Your task to perform on an android device: set an alarm Image 0: 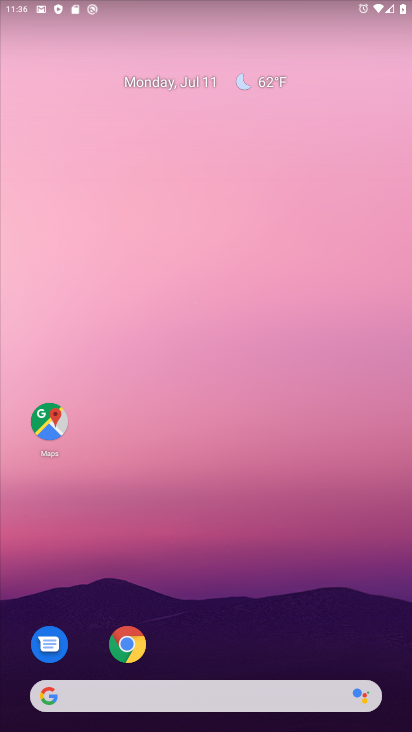
Step 0: drag from (192, 664) to (113, 63)
Your task to perform on an android device: set an alarm Image 1: 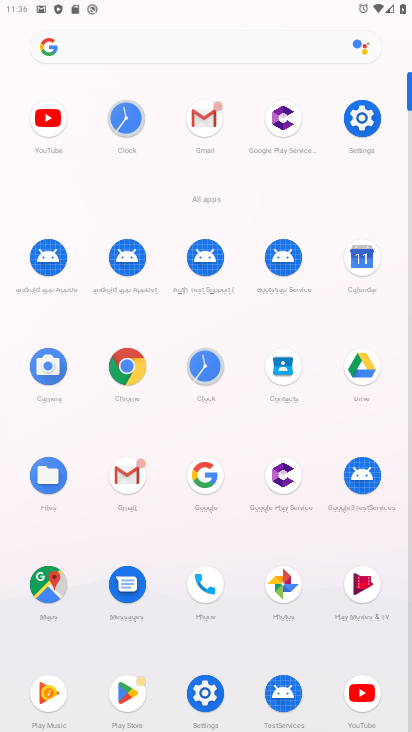
Step 1: click (134, 126)
Your task to perform on an android device: set an alarm Image 2: 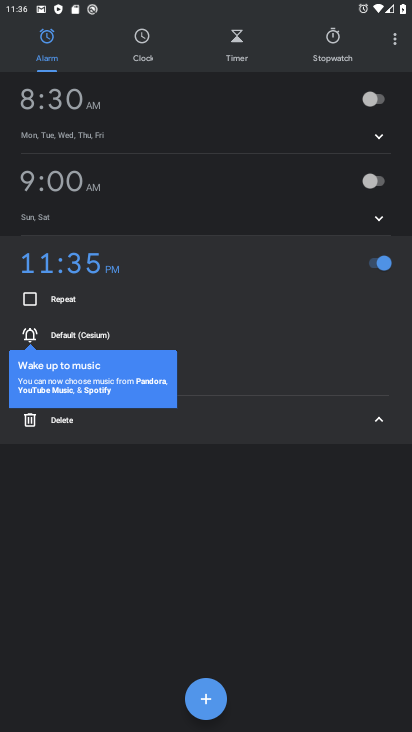
Step 2: click (197, 687)
Your task to perform on an android device: set an alarm Image 3: 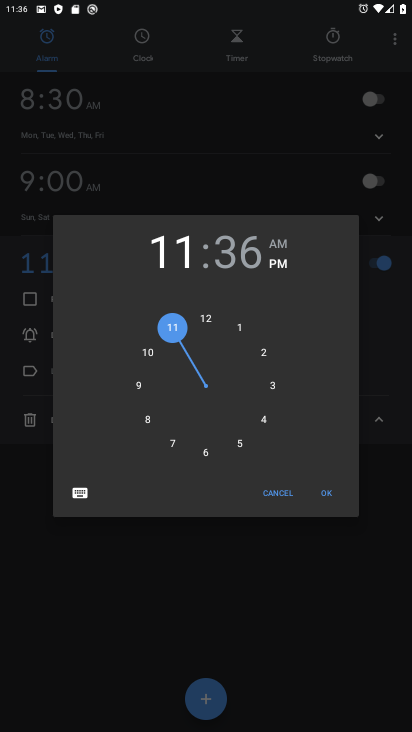
Step 3: click (318, 491)
Your task to perform on an android device: set an alarm Image 4: 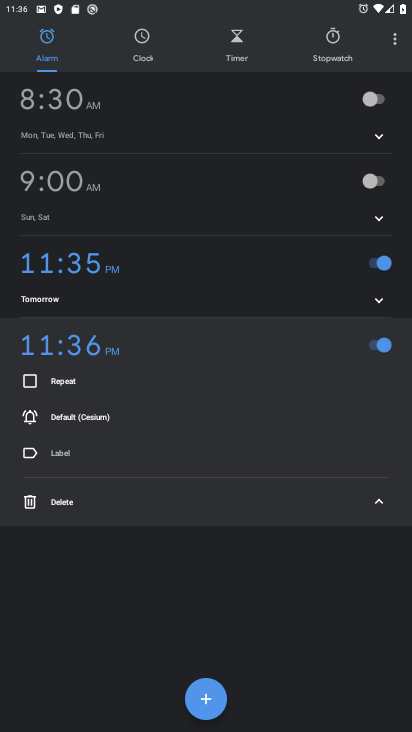
Step 4: task complete